Your task to perform on an android device: turn off location Image 0: 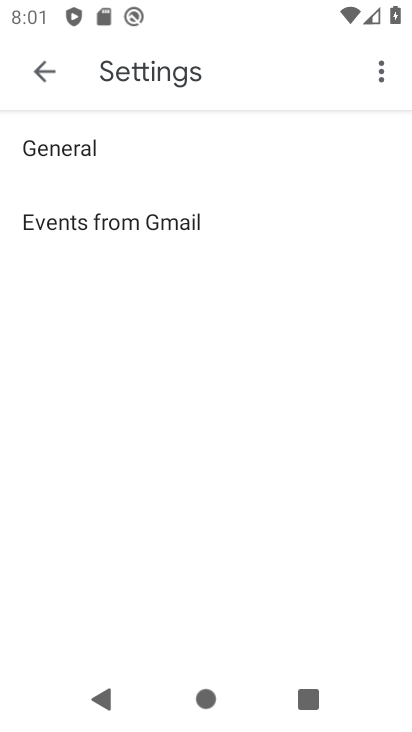
Step 0: press home button
Your task to perform on an android device: turn off location Image 1: 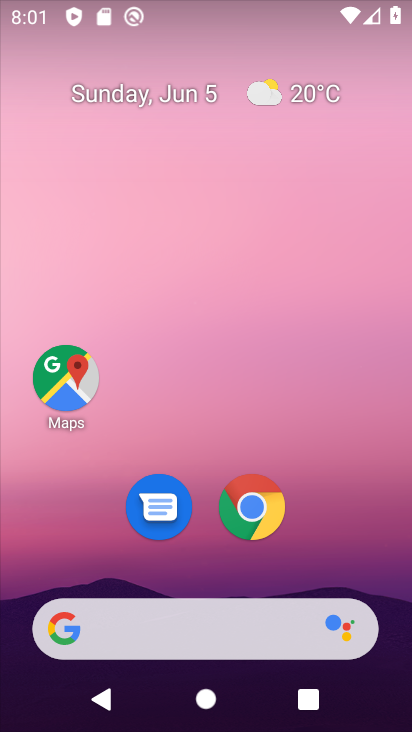
Step 1: drag from (273, 572) to (352, 75)
Your task to perform on an android device: turn off location Image 2: 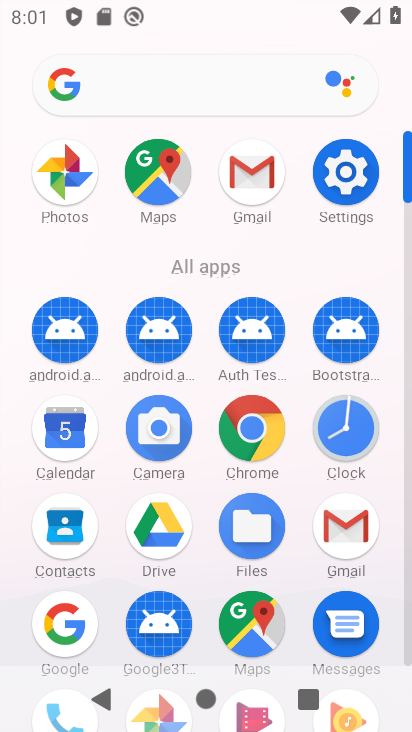
Step 2: click (360, 181)
Your task to perform on an android device: turn off location Image 3: 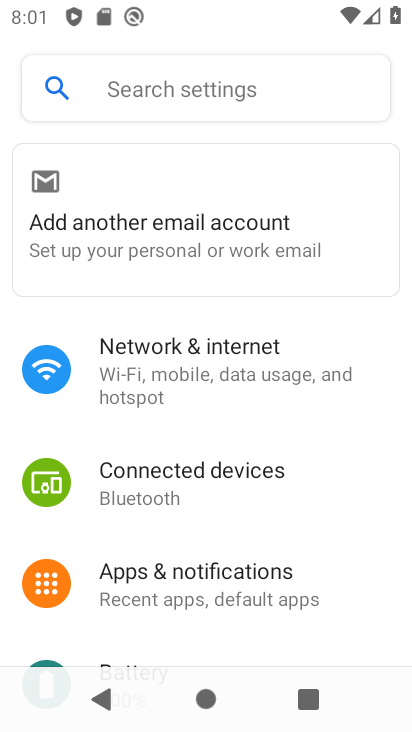
Step 3: drag from (189, 613) to (236, 186)
Your task to perform on an android device: turn off location Image 4: 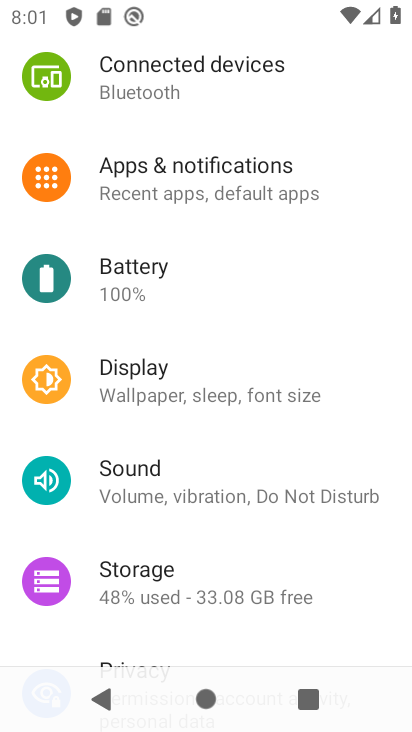
Step 4: drag from (176, 562) to (226, 270)
Your task to perform on an android device: turn off location Image 5: 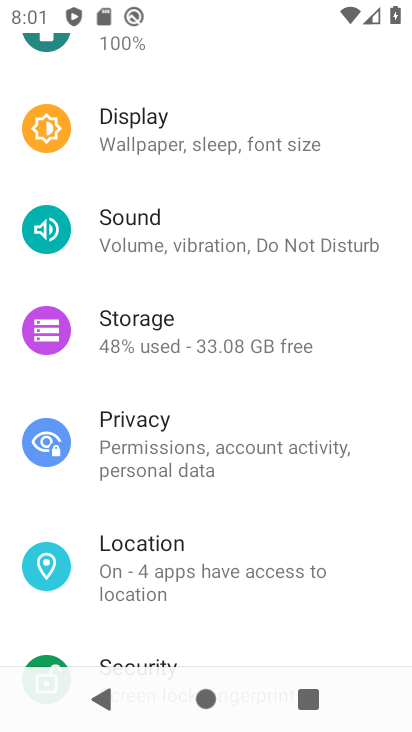
Step 5: click (184, 554)
Your task to perform on an android device: turn off location Image 6: 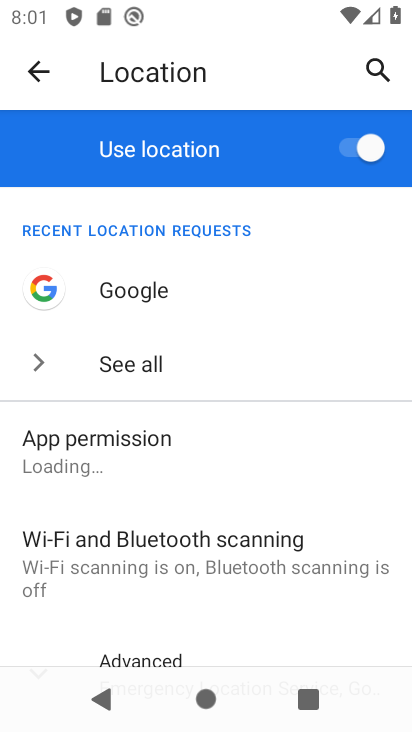
Step 6: click (326, 145)
Your task to perform on an android device: turn off location Image 7: 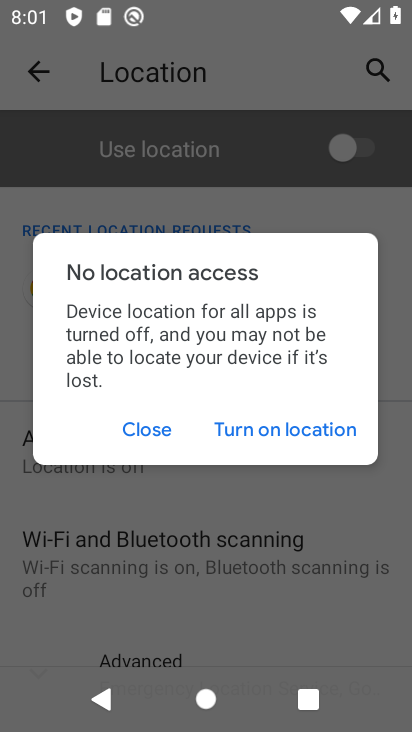
Step 7: task complete